Your task to perform on an android device: Go to location settings Image 0: 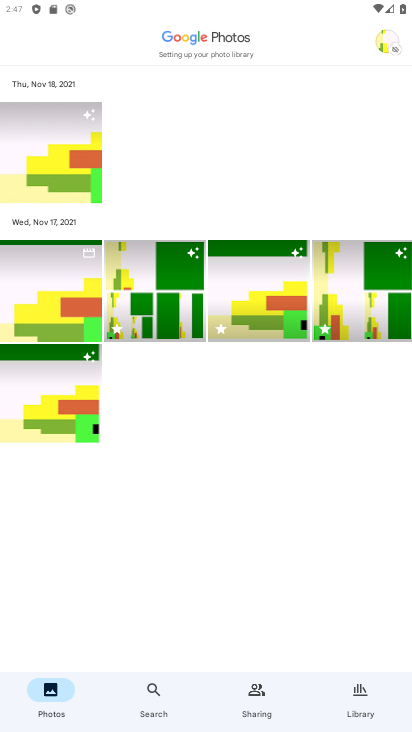
Step 0: press back button
Your task to perform on an android device: Go to location settings Image 1: 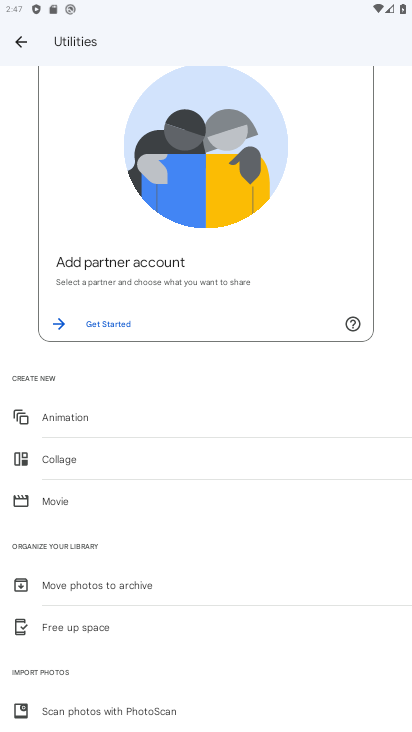
Step 1: press back button
Your task to perform on an android device: Go to location settings Image 2: 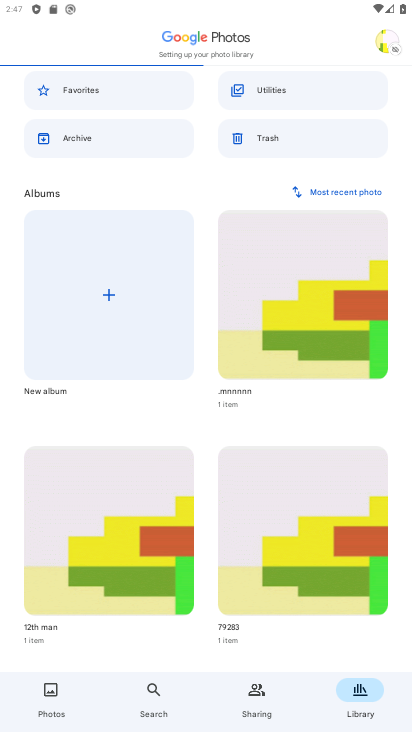
Step 2: press back button
Your task to perform on an android device: Go to location settings Image 3: 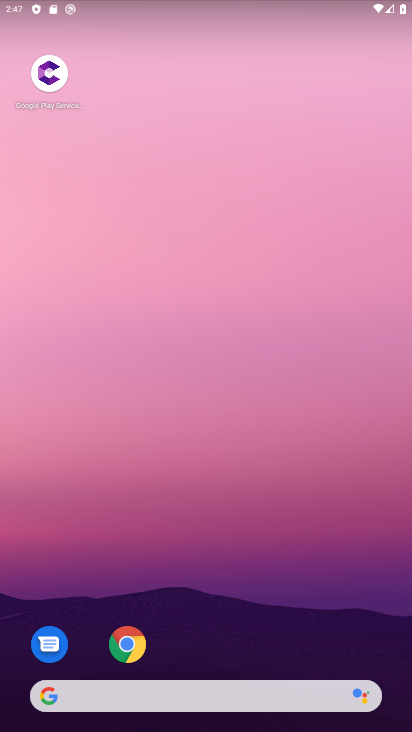
Step 3: drag from (245, 620) to (225, 60)
Your task to perform on an android device: Go to location settings Image 4: 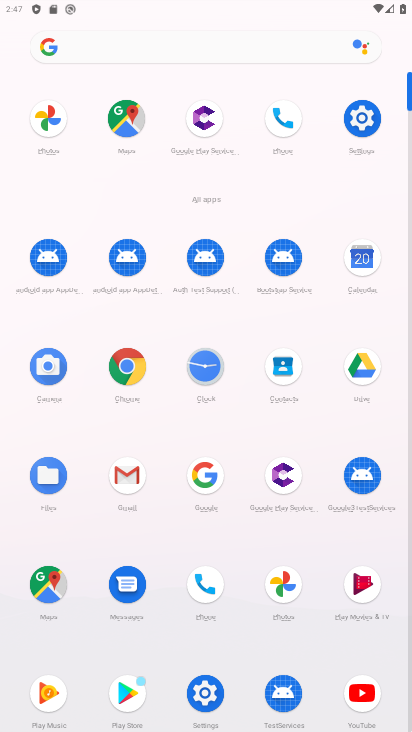
Step 4: click (357, 118)
Your task to perform on an android device: Go to location settings Image 5: 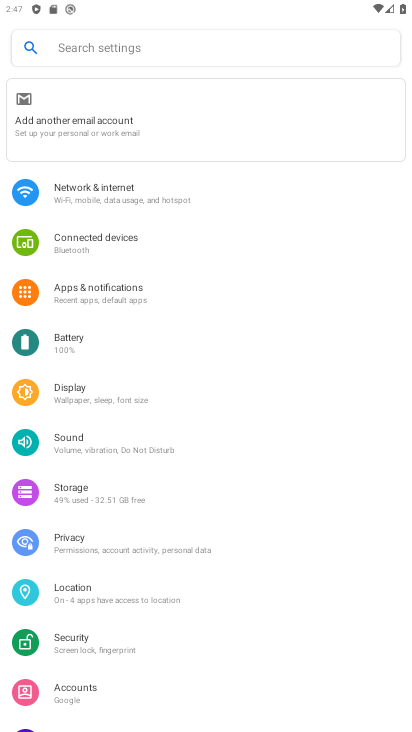
Step 5: click (102, 592)
Your task to perform on an android device: Go to location settings Image 6: 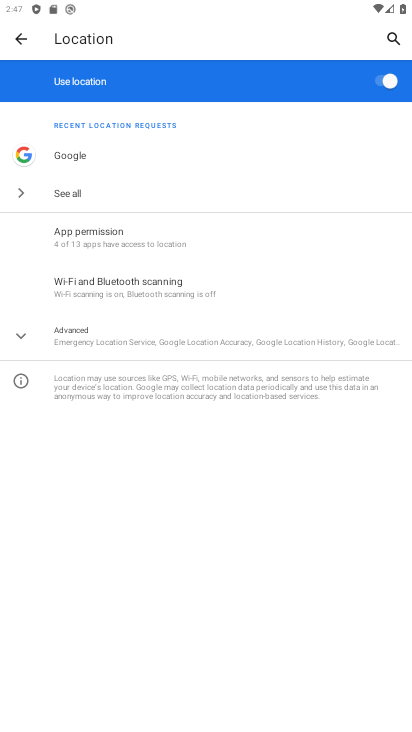
Step 6: task complete